Your task to perform on an android device: open a bookmark in the chrome app Image 0: 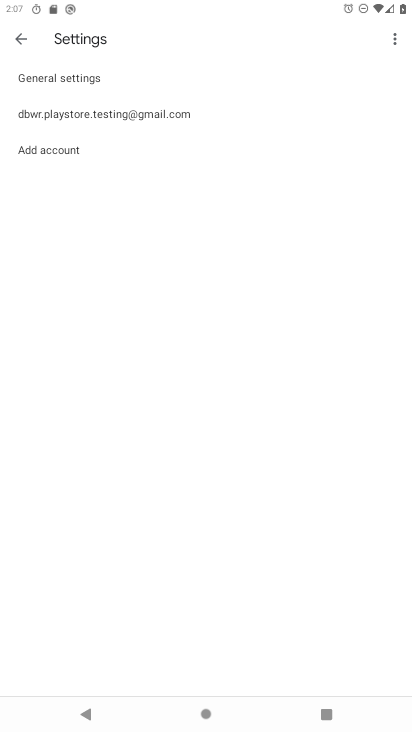
Step 0: press home button
Your task to perform on an android device: open a bookmark in the chrome app Image 1: 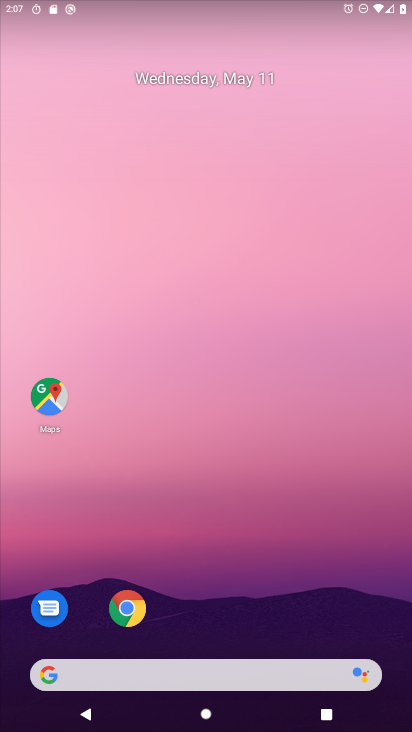
Step 1: click (134, 618)
Your task to perform on an android device: open a bookmark in the chrome app Image 2: 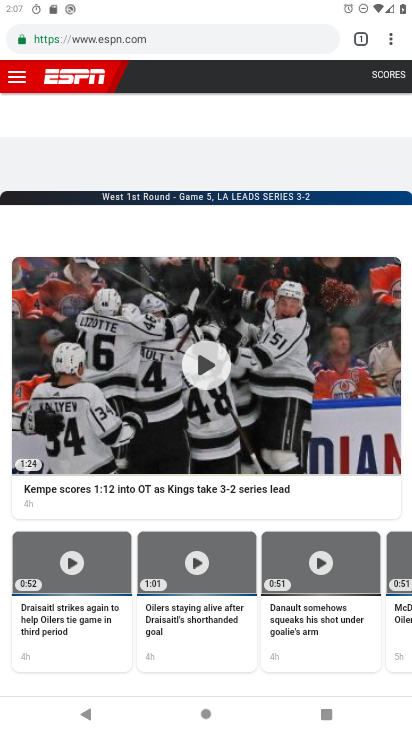
Step 2: click (385, 48)
Your task to perform on an android device: open a bookmark in the chrome app Image 3: 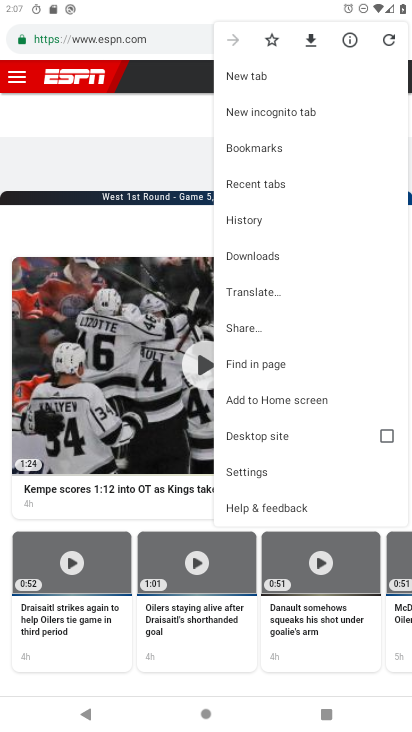
Step 3: click (277, 157)
Your task to perform on an android device: open a bookmark in the chrome app Image 4: 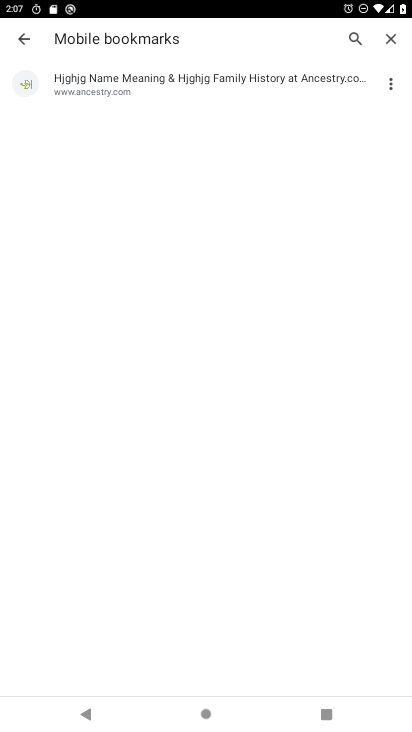
Step 4: click (185, 90)
Your task to perform on an android device: open a bookmark in the chrome app Image 5: 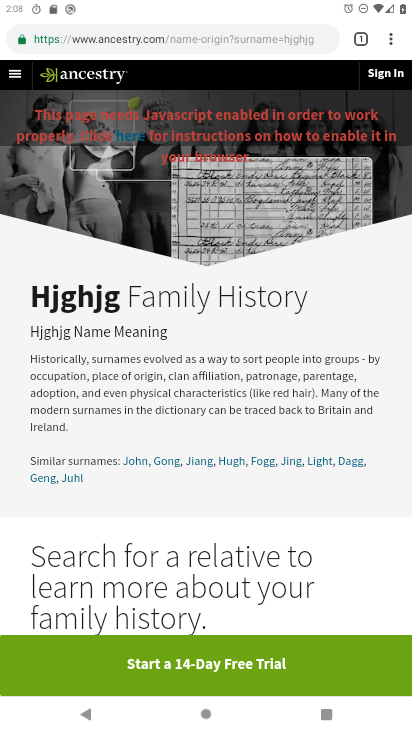
Step 5: task complete